Your task to perform on an android device: Open Chrome and go to the settings page Image 0: 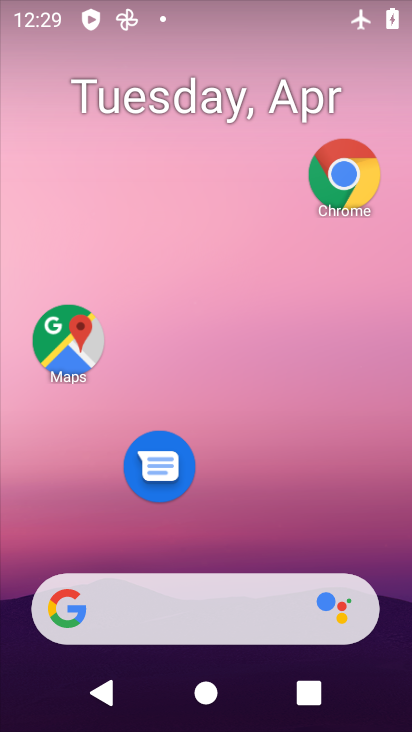
Step 0: drag from (300, 382) to (305, 29)
Your task to perform on an android device: Open Chrome and go to the settings page Image 1: 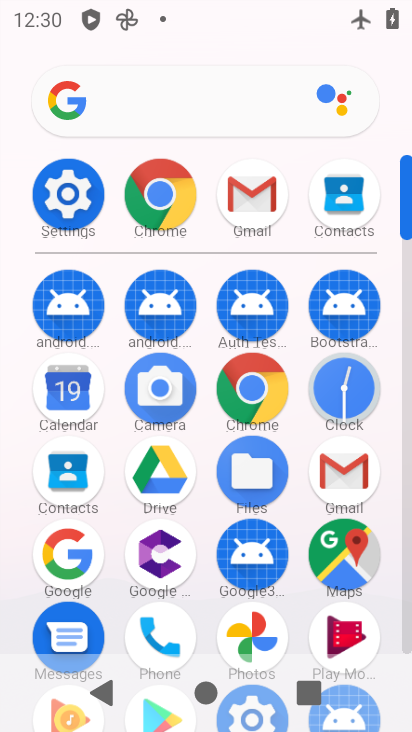
Step 1: click (164, 212)
Your task to perform on an android device: Open Chrome and go to the settings page Image 2: 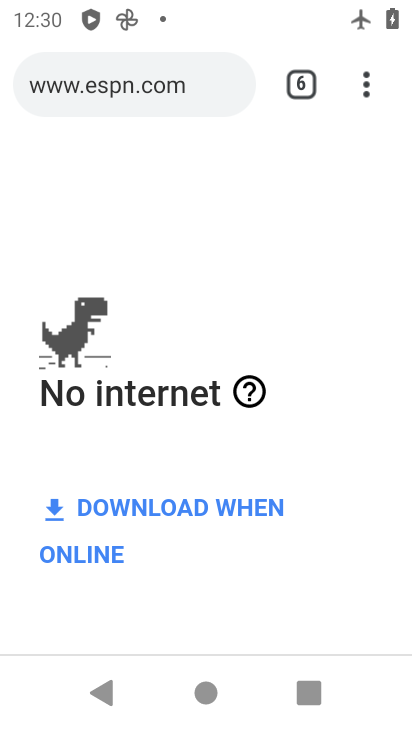
Step 2: click (378, 93)
Your task to perform on an android device: Open Chrome and go to the settings page Image 3: 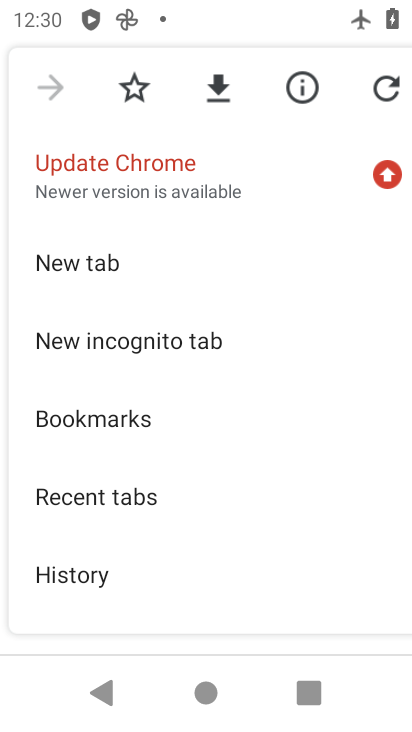
Step 3: drag from (217, 488) to (198, 238)
Your task to perform on an android device: Open Chrome and go to the settings page Image 4: 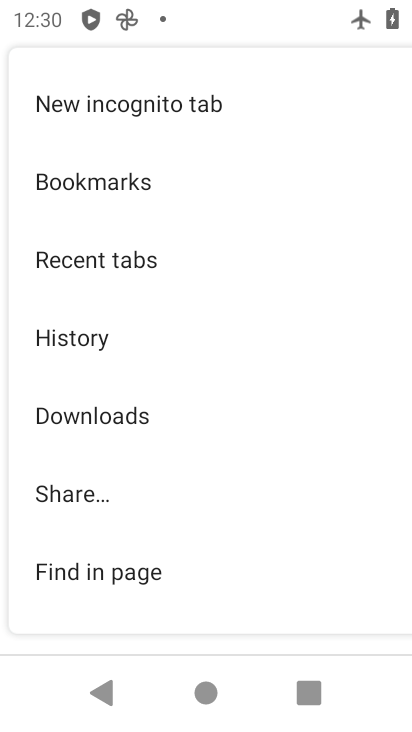
Step 4: drag from (162, 460) to (126, 240)
Your task to perform on an android device: Open Chrome and go to the settings page Image 5: 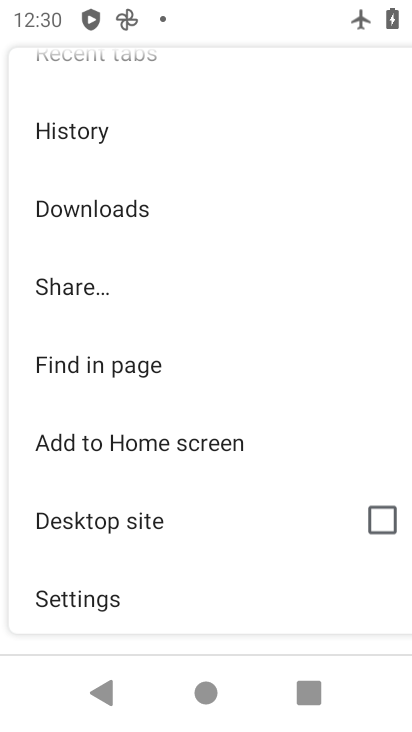
Step 5: click (115, 594)
Your task to perform on an android device: Open Chrome and go to the settings page Image 6: 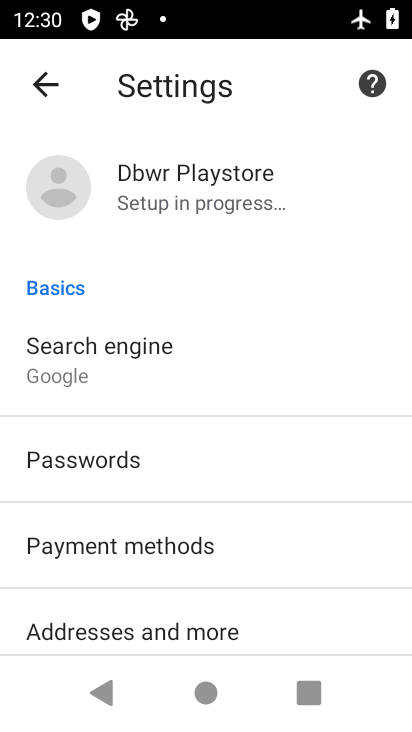
Step 6: task complete